Your task to perform on an android device: What's the weather? Image 0: 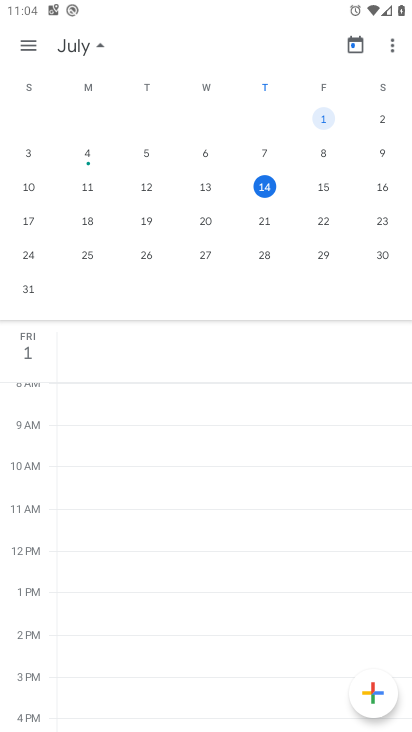
Step 0: press home button
Your task to perform on an android device: What's the weather? Image 1: 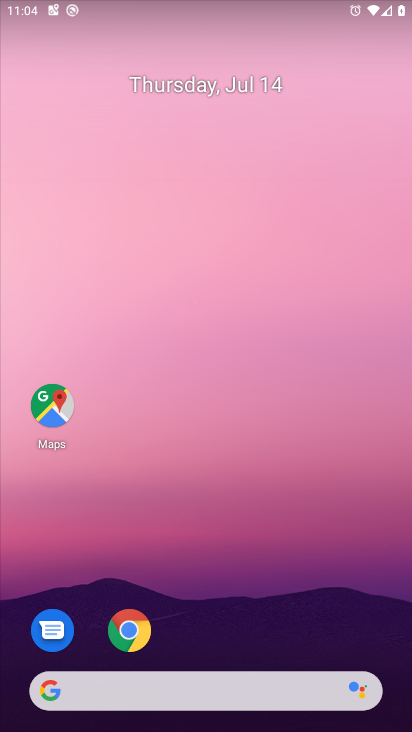
Step 1: click (77, 705)
Your task to perform on an android device: What's the weather? Image 2: 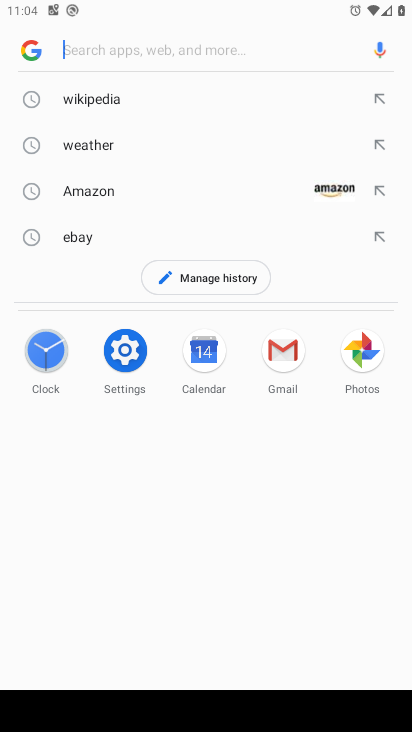
Step 2: type "What's the weather?"
Your task to perform on an android device: What's the weather? Image 3: 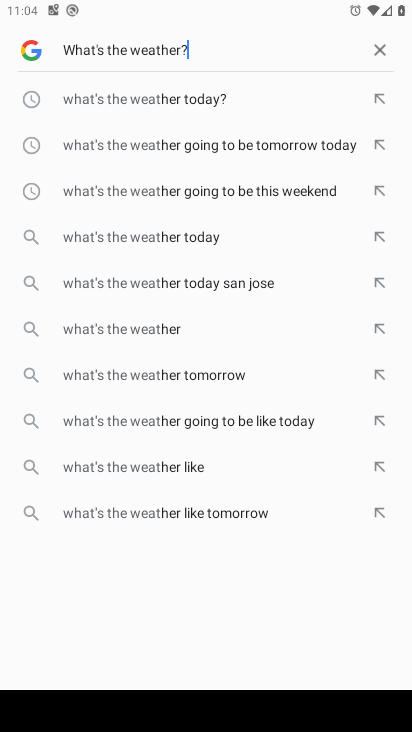
Step 3: type ""
Your task to perform on an android device: What's the weather? Image 4: 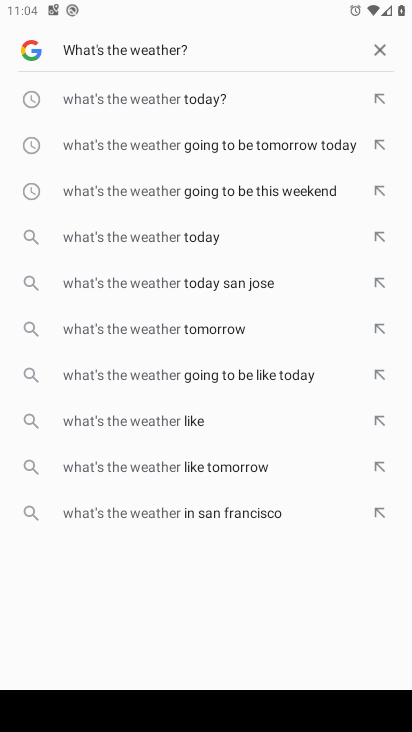
Step 4: type ""
Your task to perform on an android device: What's the weather? Image 5: 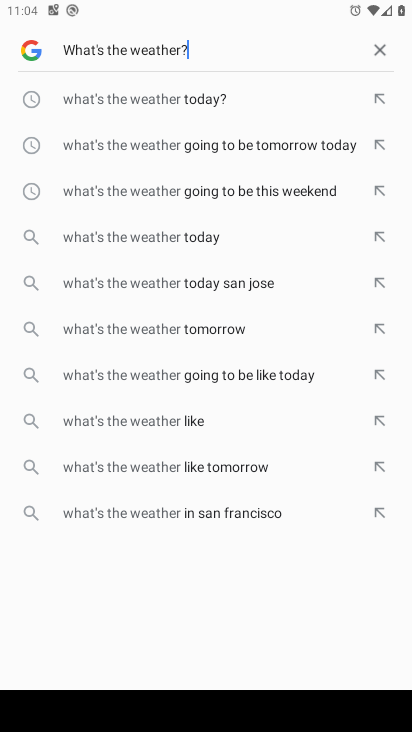
Step 5: type ""
Your task to perform on an android device: What's the weather? Image 6: 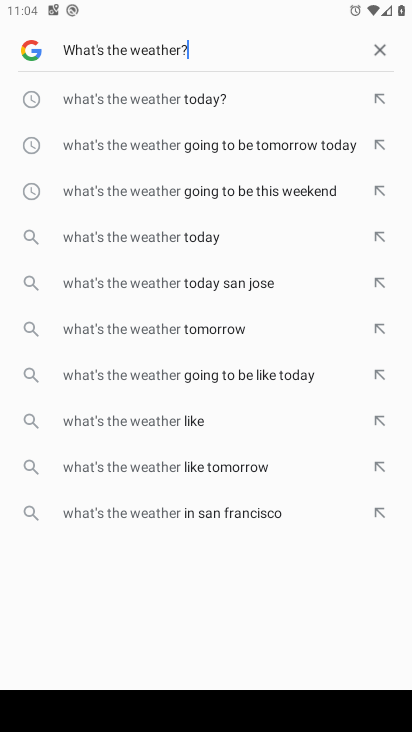
Step 6: task complete